Your task to perform on an android device: turn off location Image 0: 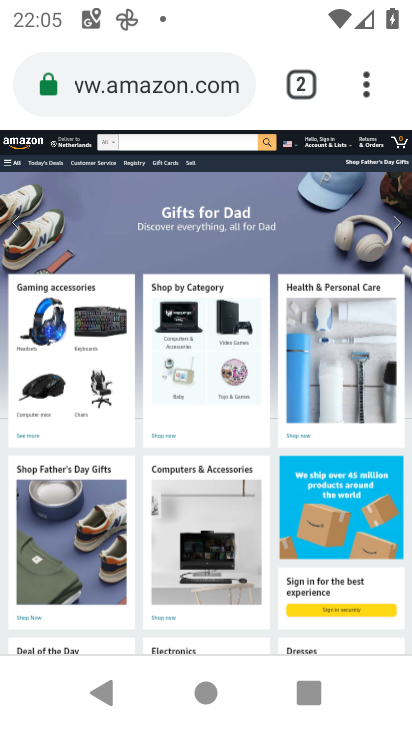
Step 0: click (371, 101)
Your task to perform on an android device: turn off location Image 1: 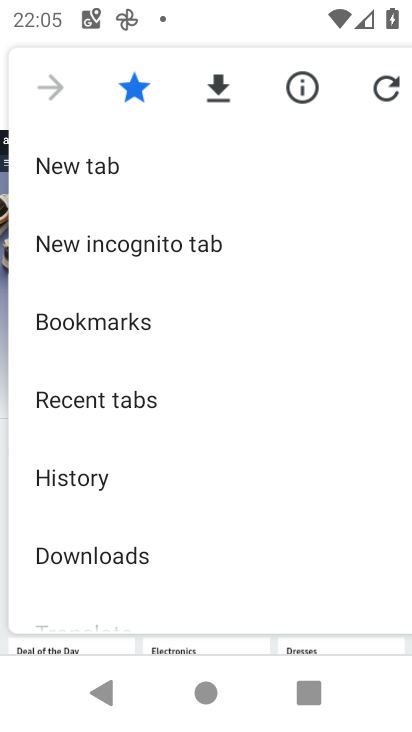
Step 1: drag from (178, 590) to (219, 254)
Your task to perform on an android device: turn off location Image 2: 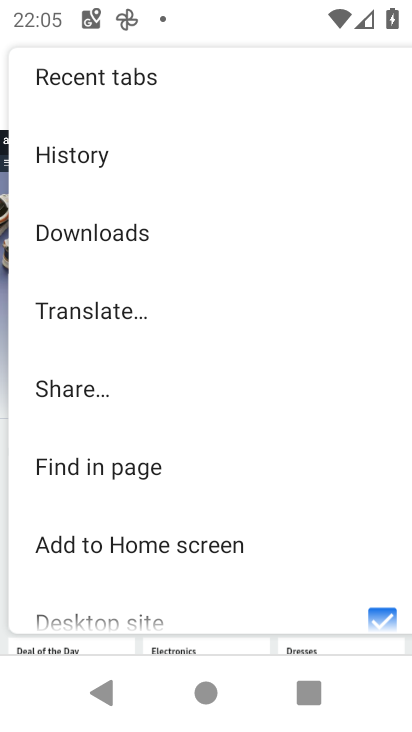
Step 2: press home button
Your task to perform on an android device: turn off location Image 3: 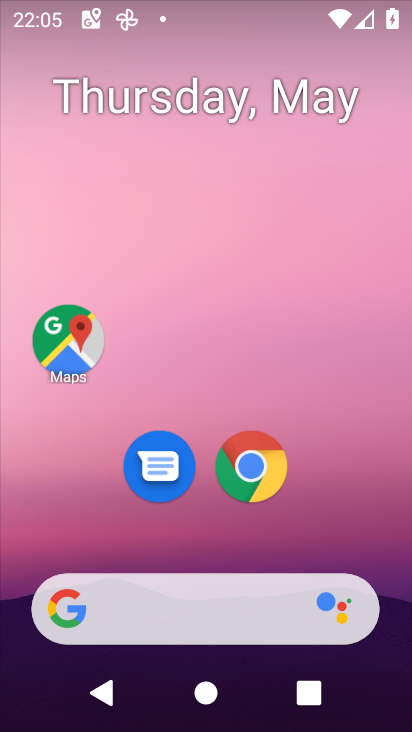
Step 3: drag from (348, 529) to (337, 63)
Your task to perform on an android device: turn off location Image 4: 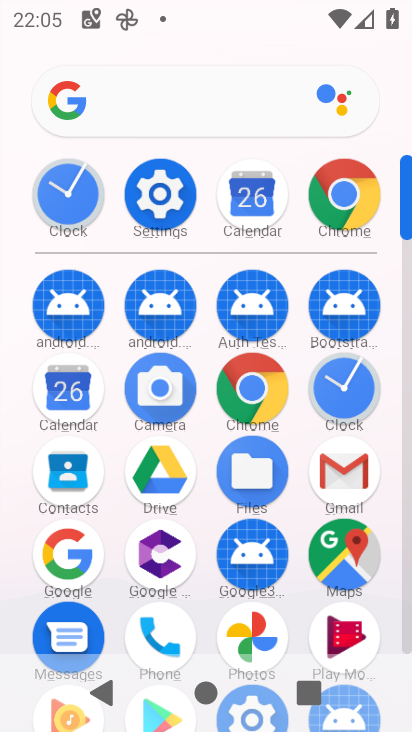
Step 4: click (140, 210)
Your task to perform on an android device: turn off location Image 5: 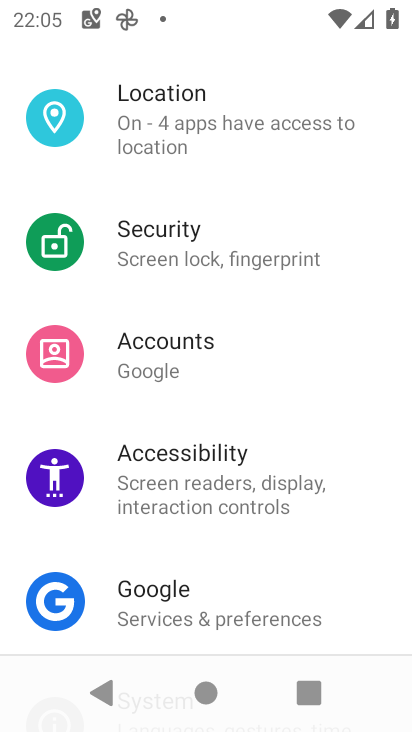
Step 5: click (125, 698)
Your task to perform on an android device: turn off location Image 6: 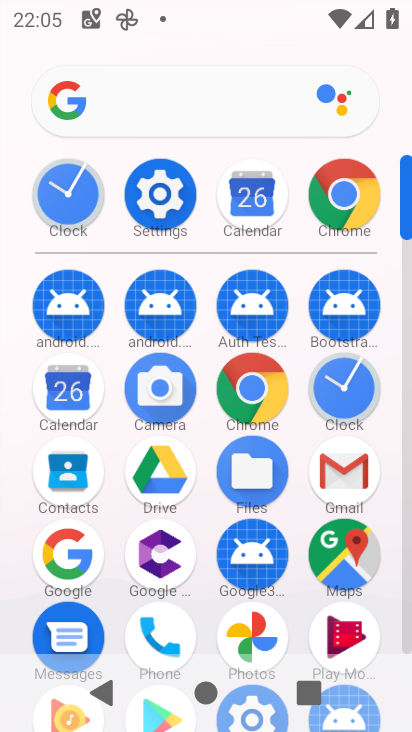
Step 6: click (173, 203)
Your task to perform on an android device: turn off location Image 7: 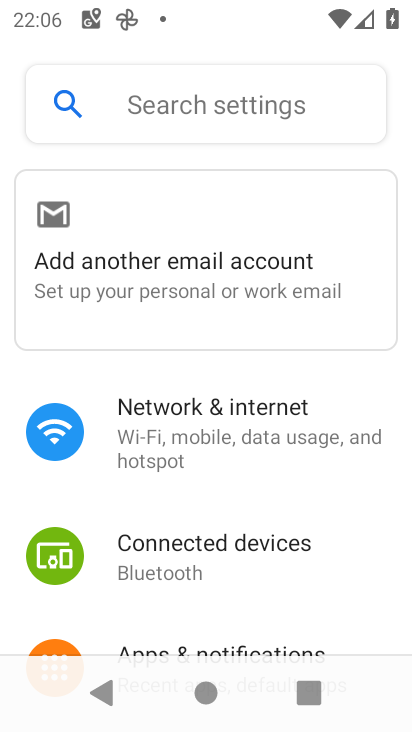
Step 7: drag from (273, 624) to (287, 43)
Your task to perform on an android device: turn off location Image 8: 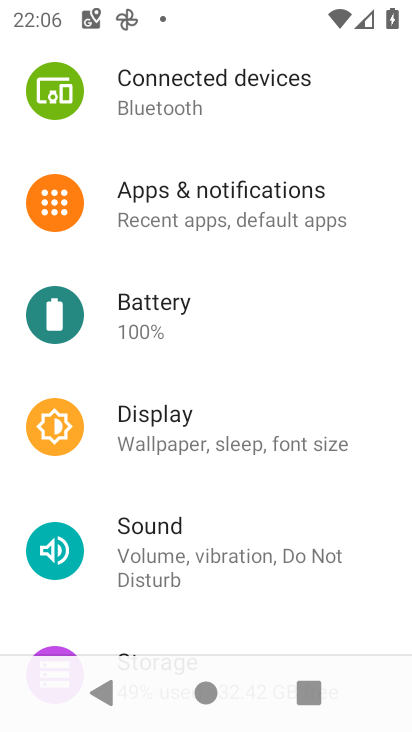
Step 8: drag from (249, 565) to (264, 214)
Your task to perform on an android device: turn off location Image 9: 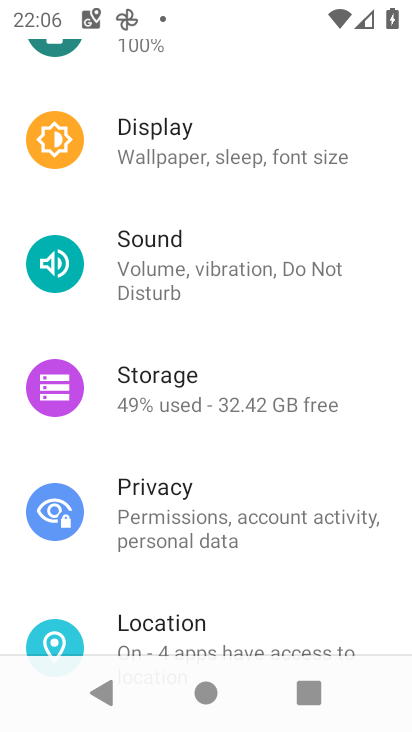
Step 9: click (204, 587)
Your task to perform on an android device: turn off location Image 10: 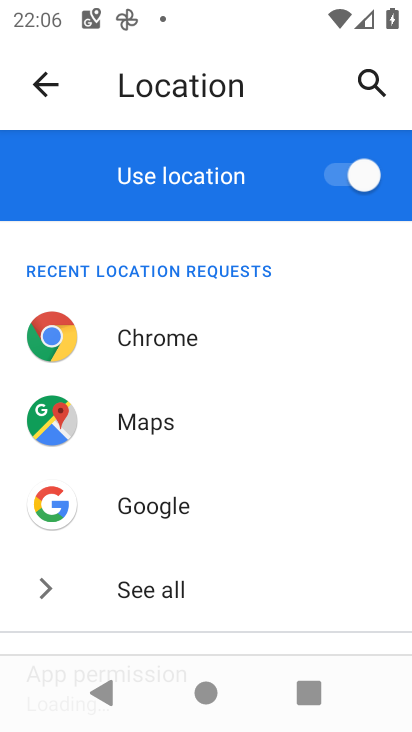
Step 10: task complete